Your task to perform on an android device: turn off priority inbox in the gmail app Image 0: 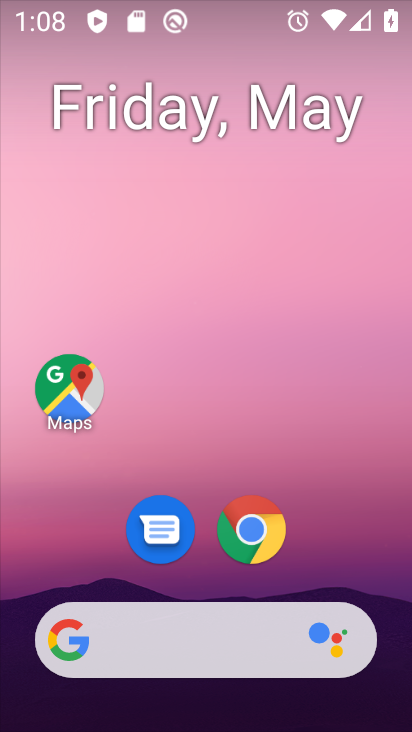
Step 0: drag from (394, 527) to (390, 248)
Your task to perform on an android device: turn off priority inbox in the gmail app Image 1: 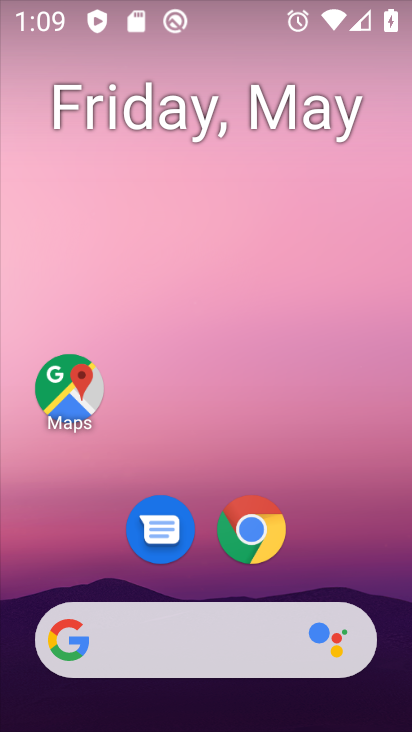
Step 1: click (374, 178)
Your task to perform on an android device: turn off priority inbox in the gmail app Image 2: 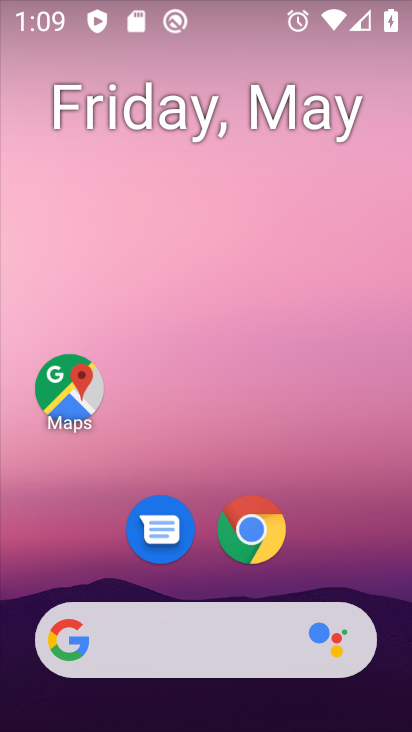
Step 2: drag from (398, 704) to (354, 163)
Your task to perform on an android device: turn off priority inbox in the gmail app Image 3: 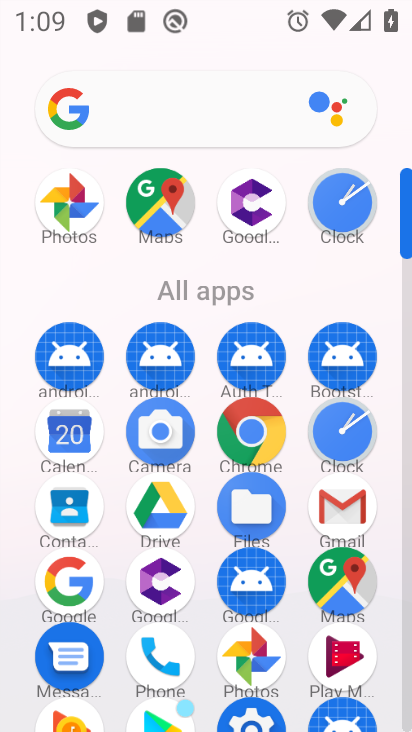
Step 3: click (337, 500)
Your task to perform on an android device: turn off priority inbox in the gmail app Image 4: 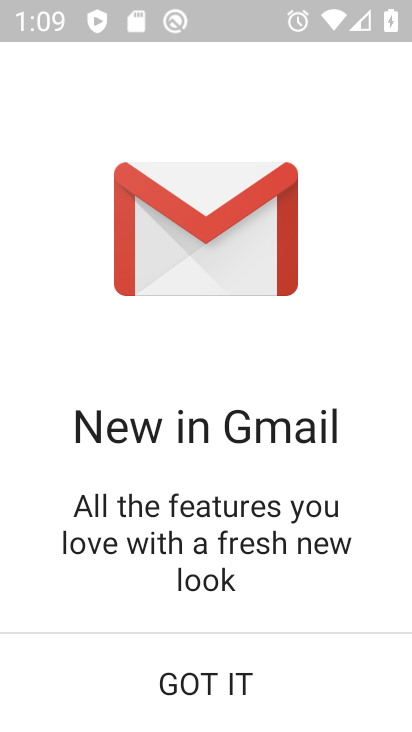
Step 4: click (181, 684)
Your task to perform on an android device: turn off priority inbox in the gmail app Image 5: 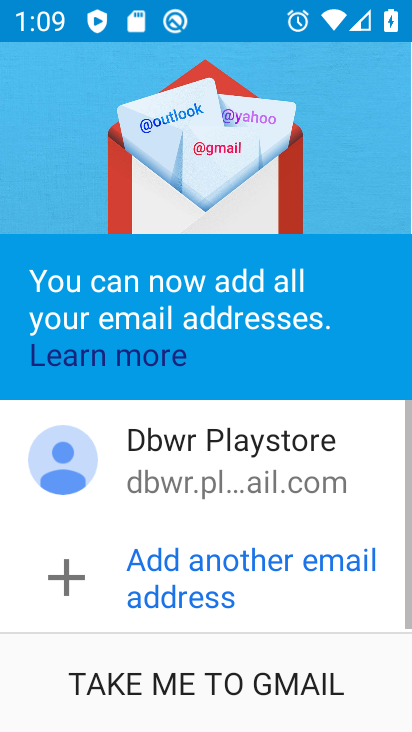
Step 5: click (182, 684)
Your task to perform on an android device: turn off priority inbox in the gmail app Image 6: 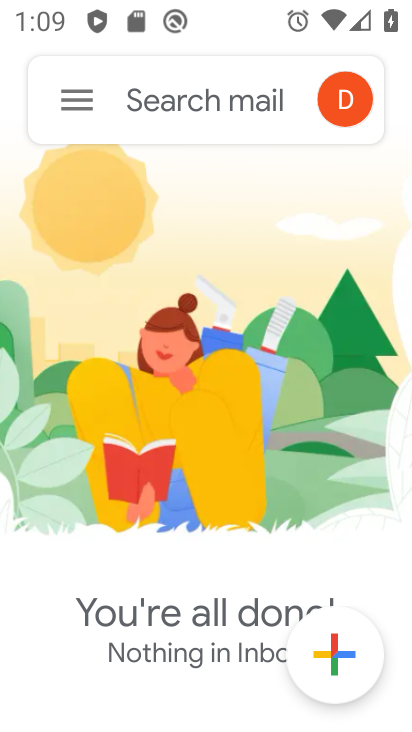
Step 6: click (75, 101)
Your task to perform on an android device: turn off priority inbox in the gmail app Image 7: 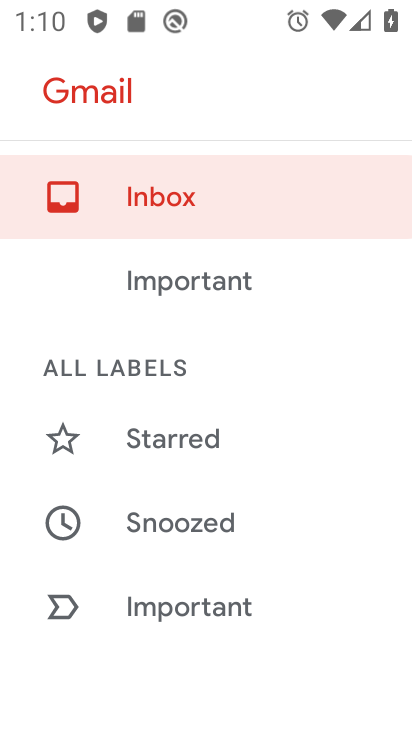
Step 7: drag from (291, 646) to (275, 393)
Your task to perform on an android device: turn off priority inbox in the gmail app Image 8: 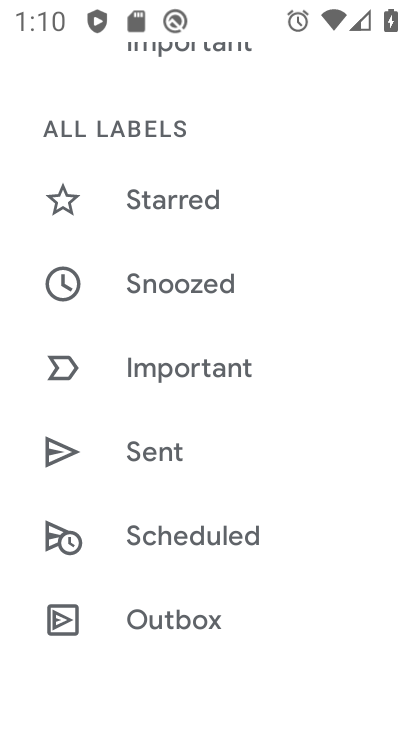
Step 8: drag from (330, 461) to (319, 286)
Your task to perform on an android device: turn off priority inbox in the gmail app Image 9: 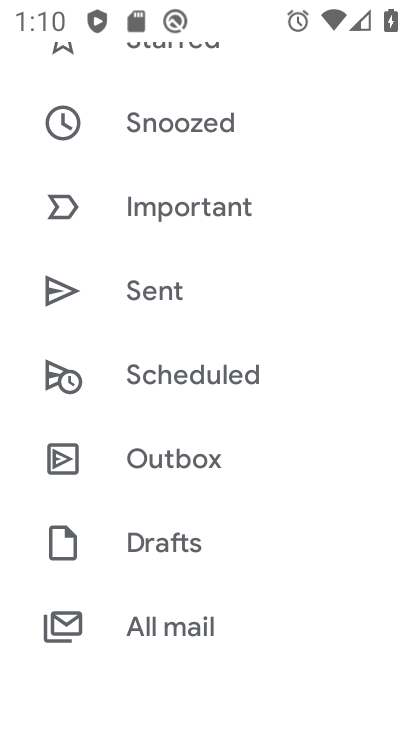
Step 9: drag from (334, 618) to (313, 437)
Your task to perform on an android device: turn off priority inbox in the gmail app Image 10: 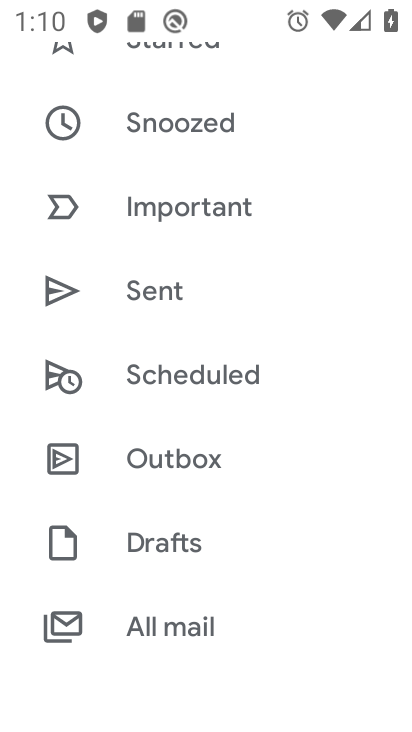
Step 10: drag from (282, 629) to (286, 378)
Your task to perform on an android device: turn off priority inbox in the gmail app Image 11: 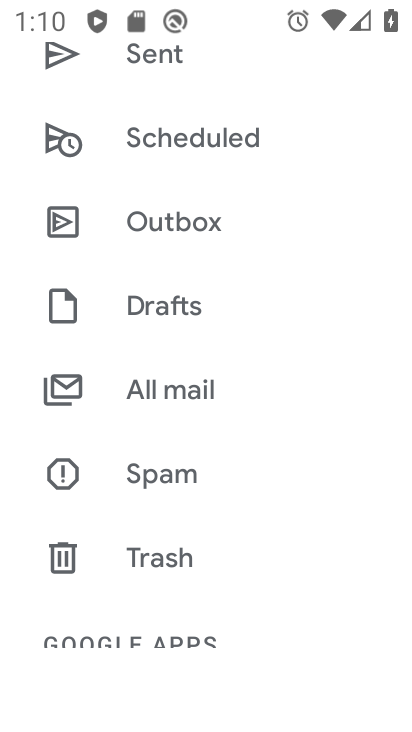
Step 11: drag from (243, 540) to (236, 438)
Your task to perform on an android device: turn off priority inbox in the gmail app Image 12: 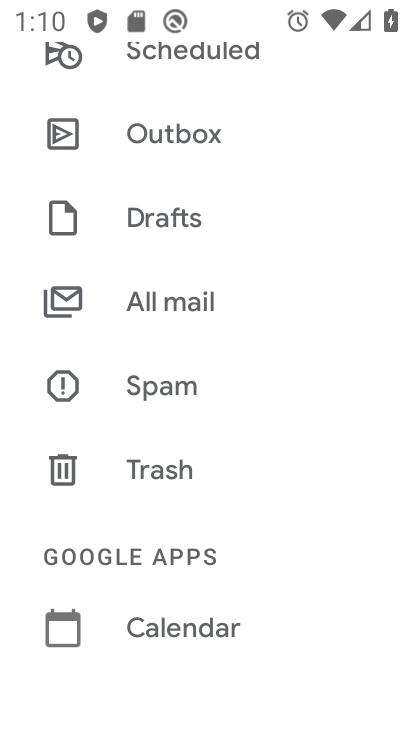
Step 12: drag from (271, 619) to (255, 409)
Your task to perform on an android device: turn off priority inbox in the gmail app Image 13: 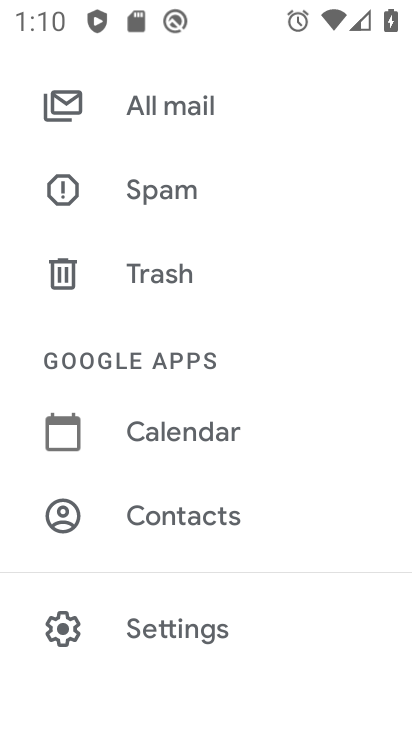
Step 13: drag from (265, 610) to (271, 363)
Your task to perform on an android device: turn off priority inbox in the gmail app Image 14: 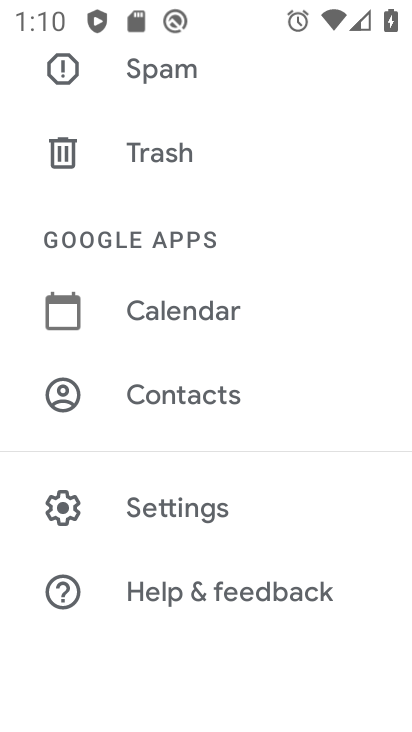
Step 14: click (164, 512)
Your task to perform on an android device: turn off priority inbox in the gmail app Image 15: 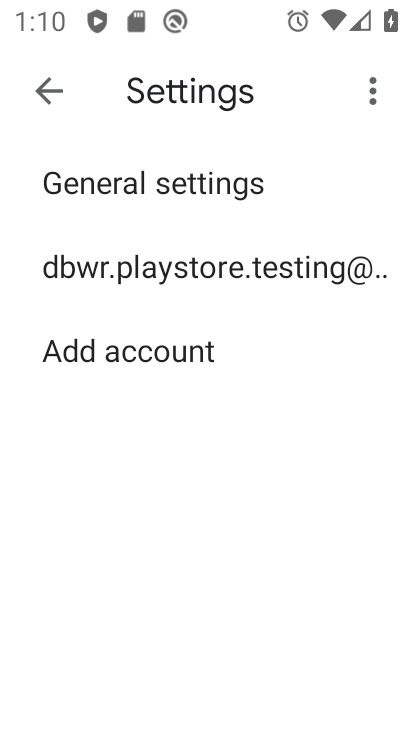
Step 15: click (93, 268)
Your task to perform on an android device: turn off priority inbox in the gmail app Image 16: 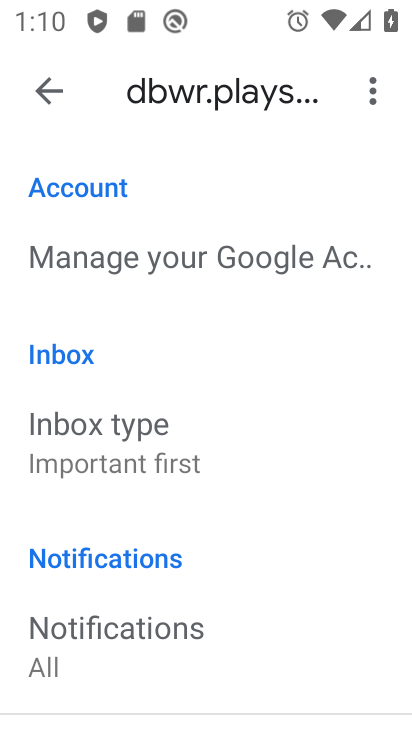
Step 16: click (92, 442)
Your task to perform on an android device: turn off priority inbox in the gmail app Image 17: 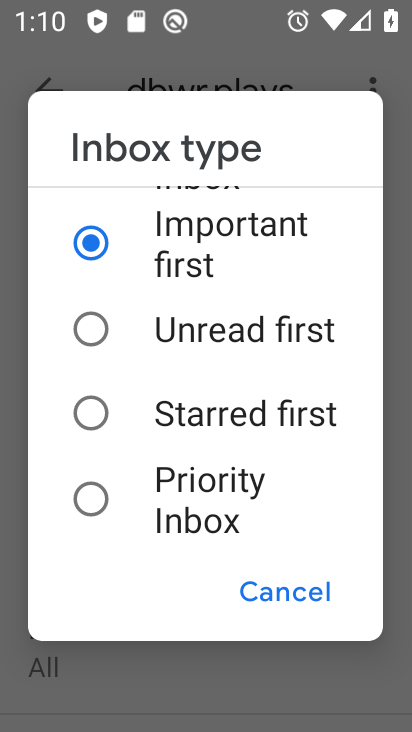
Step 17: task complete